Your task to perform on an android device: Go to display settings Image 0: 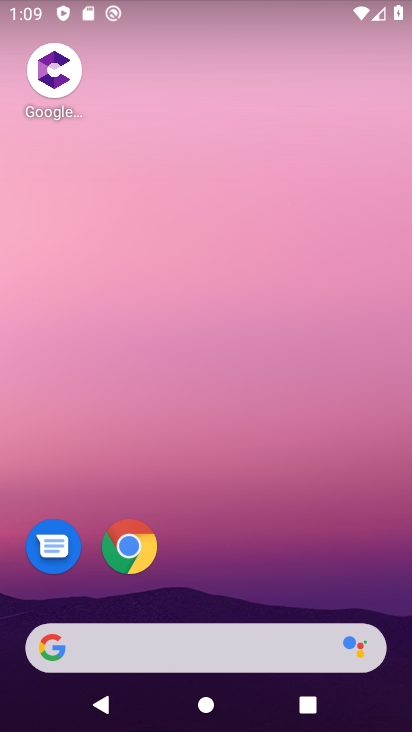
Step 0: drag from (258, 437) to (292, 201)
Your task to perform on an android device: Go to display settings Image 1: 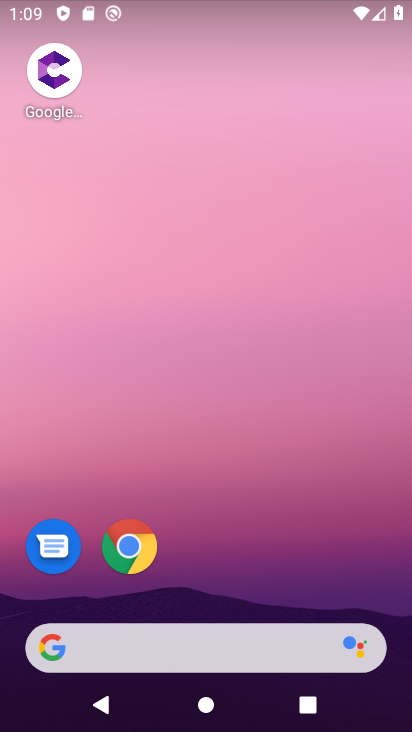
Step 1: drag from (303, 553) to (297, 187)
Your task to perform on an android device: Go to display settings Image 2: 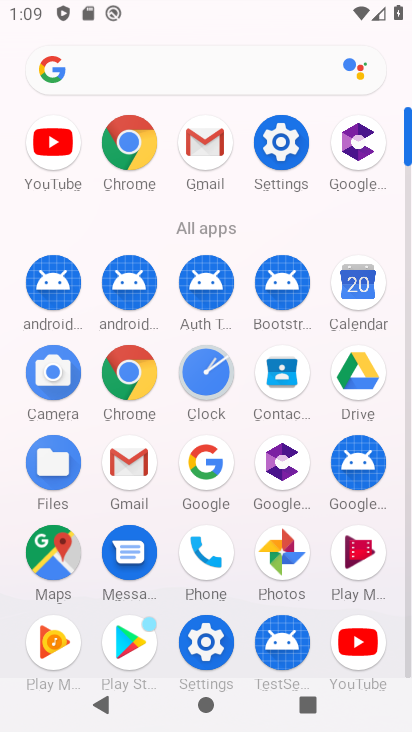
Step 2: click (278, 139)
Your task to perform on an android device: Go to display settings Image 3: 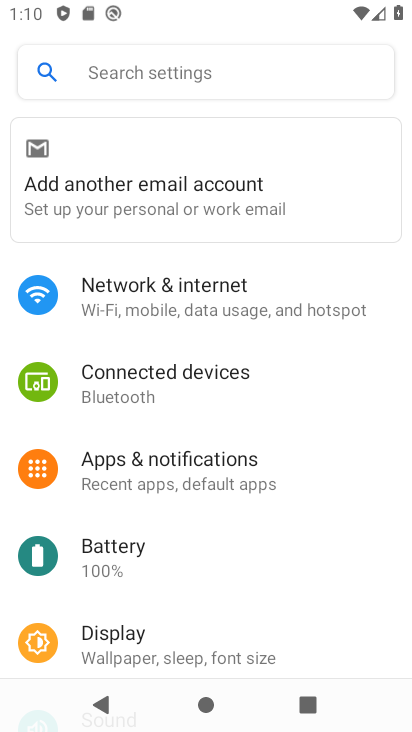
Step 3: click (136, 643)
Your task to perform on an android device: Go to display settings Image 4: 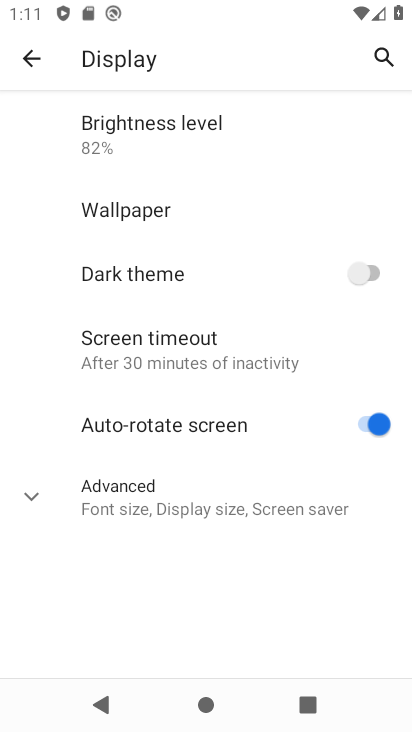
Step 4: task complete